Your task to perform on an android device: Open Yahoo.com Image 0: 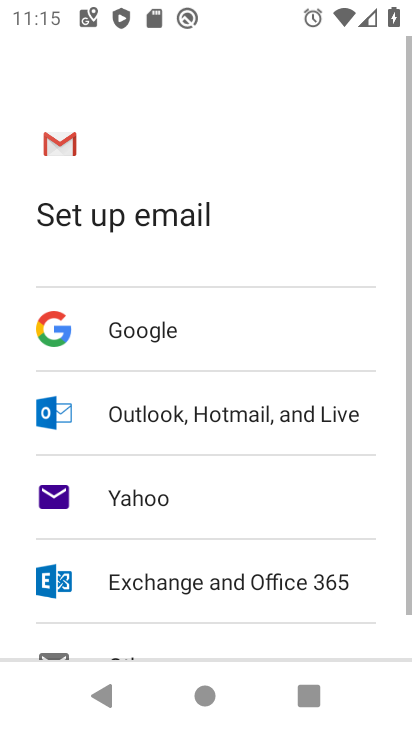
Step 0: press home button
Your task to perform on an android device: Open Yahoo.com Image 1: 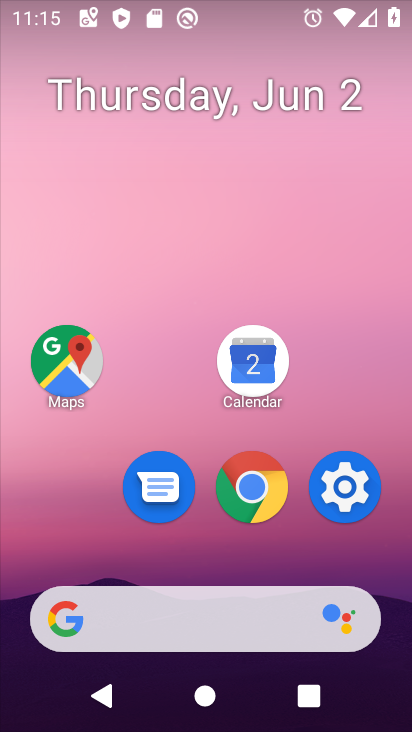
Step 1: click (249, 489)
Your task to perform on an android device: Open Yahoo.com Image 2: 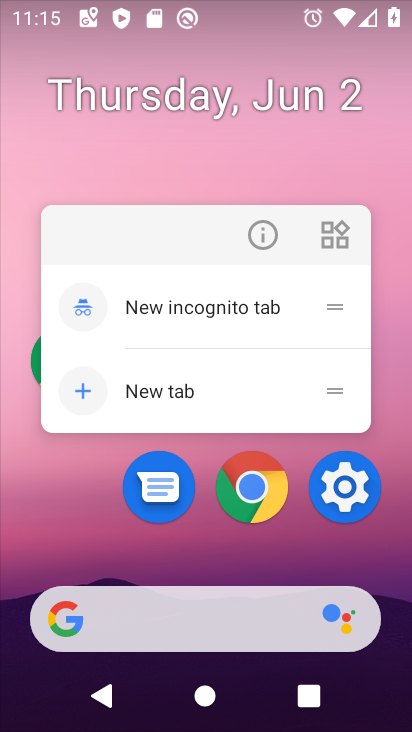
Step 2: click (249, 489)
Your task to perform on an android device: Open Yahoo.com Image 3: 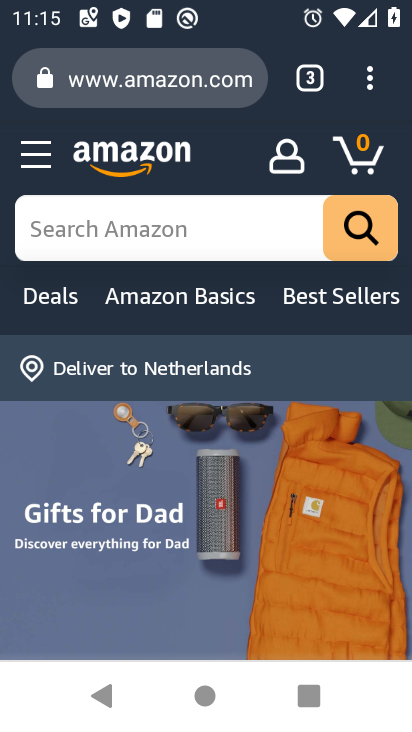
Step 3: click (307, 78)
Your task to perform on an android device: Open Yahoo.com Image 4: 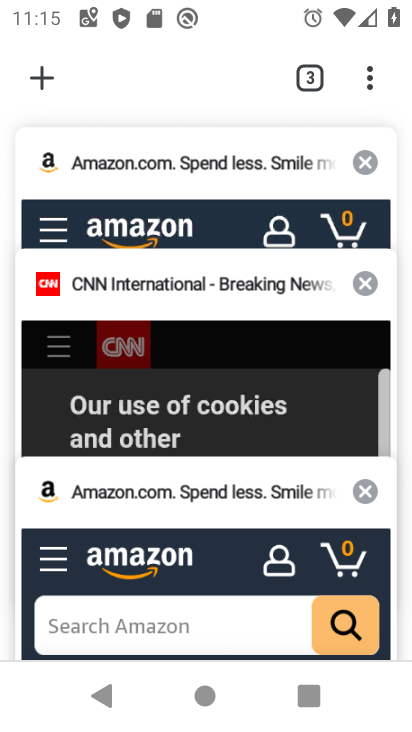
Step 4: click (45, 91)
Your task to perform on an android device: Open Yahoo.com Image 5: 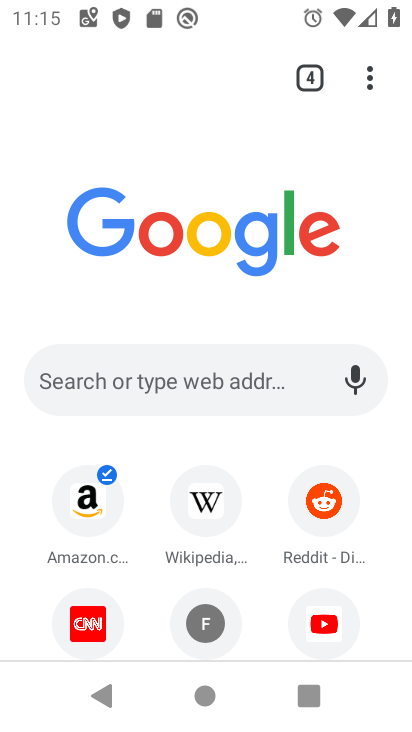
Step 5: click (186, 374)
Your task to perform on an android device: Open Yahoo.com Image 6: 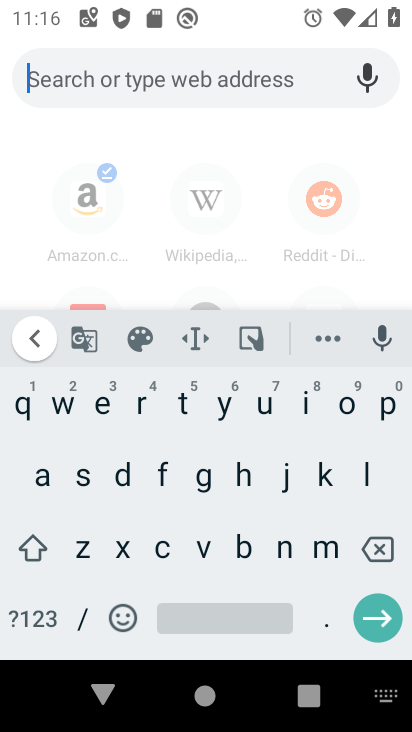
Step 6: click (215, 408)
Your task to perform on an android device: Open Yahoo.com Image 7: 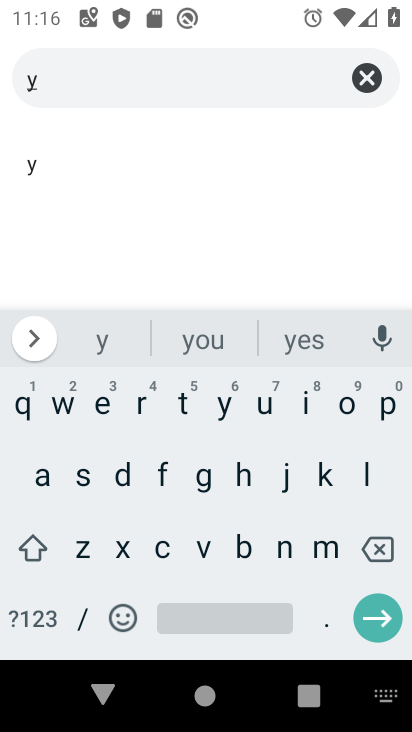
Step 7: click (37, 478)
Your task to perform on an android device: Open Yahoo.com Image 8: 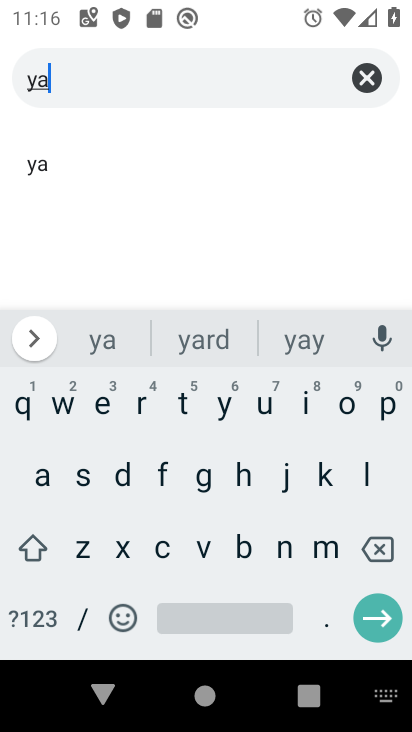
Step 8: click (243, 474)
Your task to perform on an android device: Open Yahoo.com Image 9: 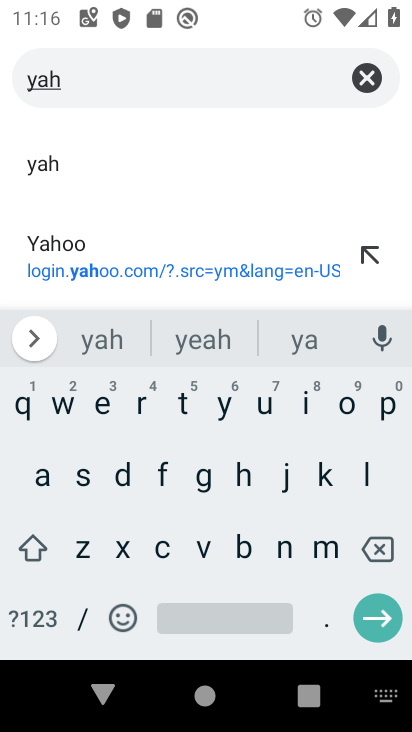
Step 9: click (80, 251)
Your task to perform on an android device: Open Yahoo.com Image 10: 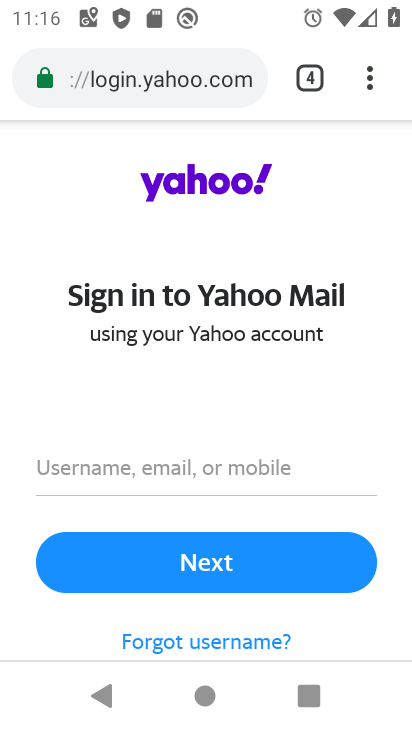
Step 10: task complete